Your task to perform on an android device: When is my next appointment? Image 0: 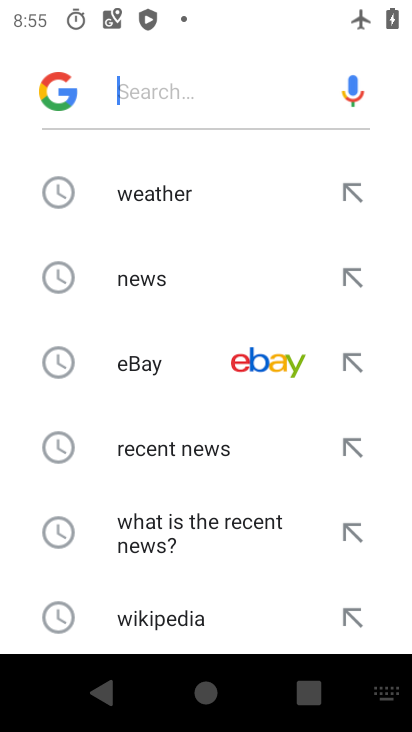
Step 0: press home button
Your task to perform on an android device: When is my next appointment? Image 1: 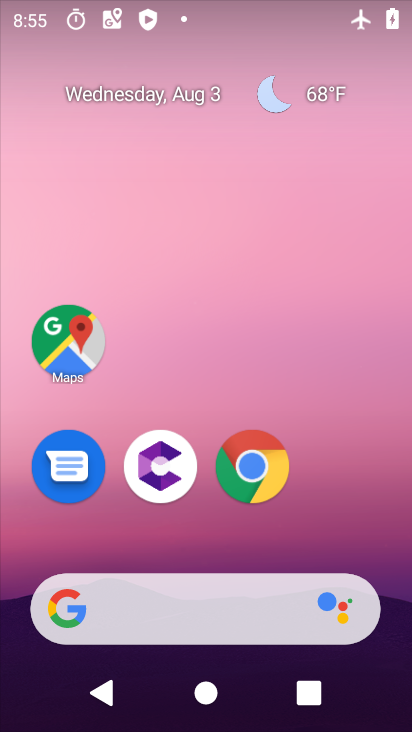
Step 1: drag from (327, 495) to (351, 77)
Your task to perform on an android device: When is my next appointment? Image 2: 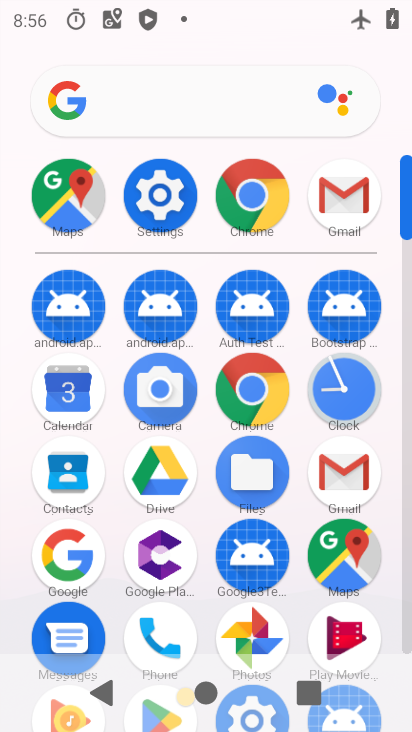
Step 2: drag from (205, 510) to (221, 326)
Your task to perform on an android device: When is my next appointment? Image 3: 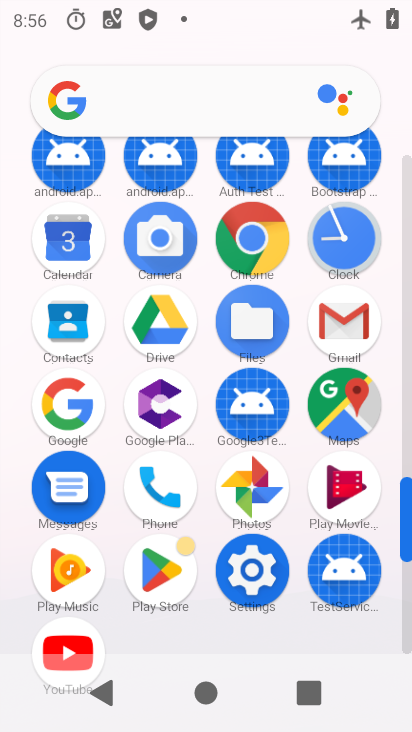
Step 3: click (46, 241)
Your task to perform on an android device: When is my next appointment? Image 4: 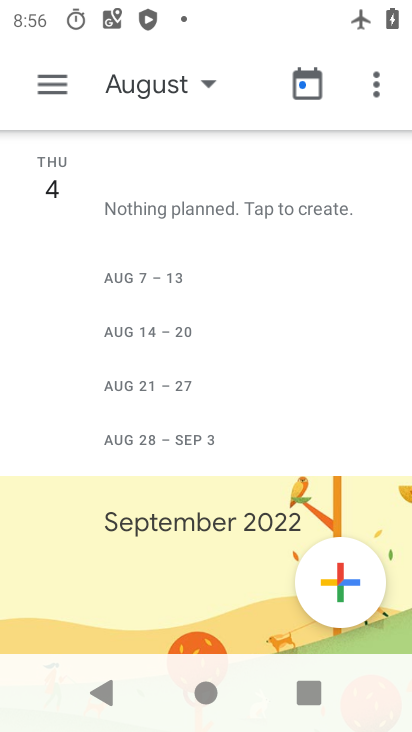
Step 4: click (186, 81)
Your task to perform on an android device: When is my next appointment? Image 5: 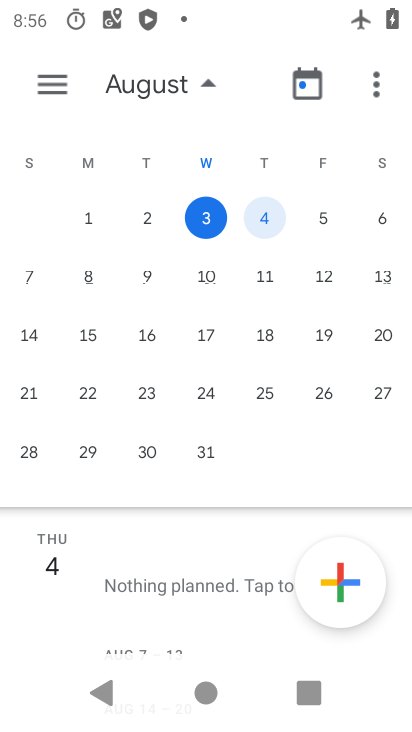
Step 5: click (193, 203)
Your task to perform on an android device: When is my next appointment? Image 6: 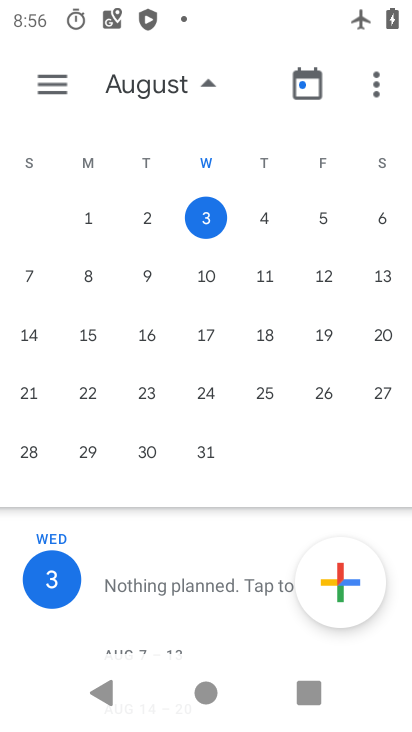
Step 6: click (195, 217)
Your task to perform on an android device: When is my next appointment? Image 7: 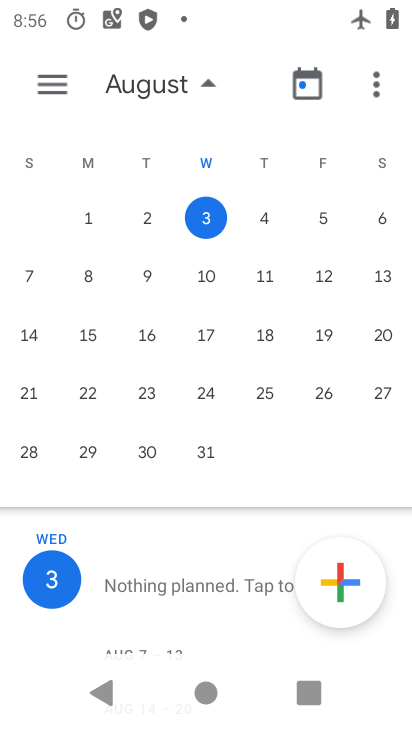
Step 7: click (208, 226)
Your task to perform on an android device: When is my next appointment? Image 8: 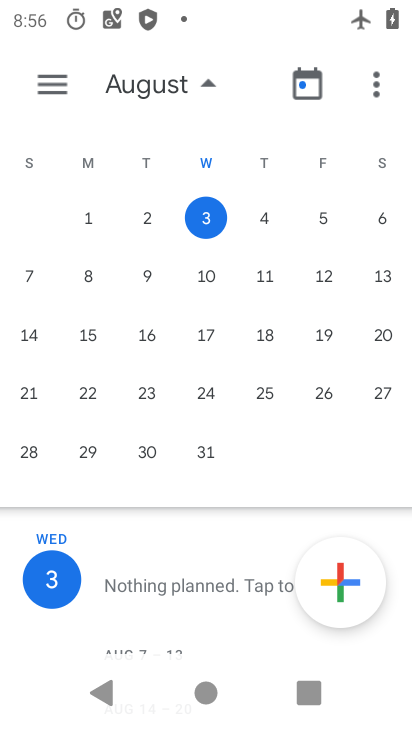
Step 8: click (51, 575)
Your task to perform on an android device: When is my next appointment? Image 9: 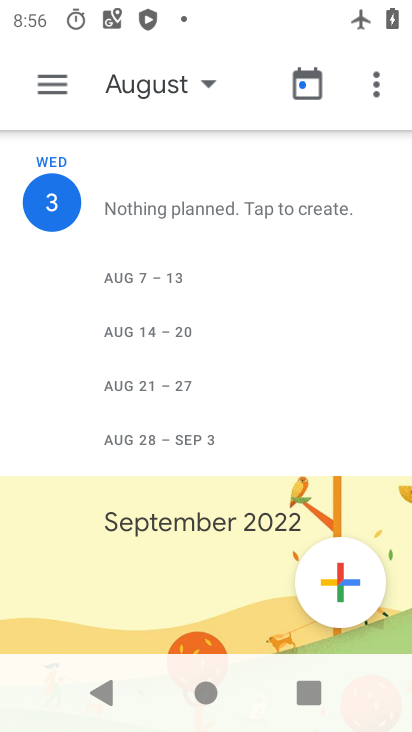
Step 9: task complete